Your task to perform on an android device: Open internet settings Image 0: 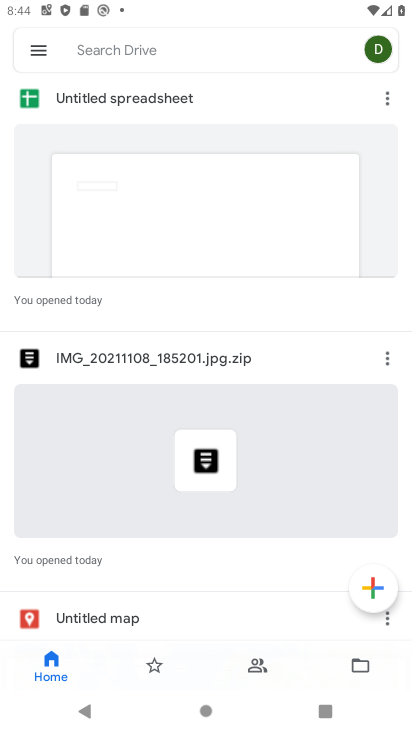
Step 0: press home button
Your task to perform on an android device: Open internet settings Image 1: 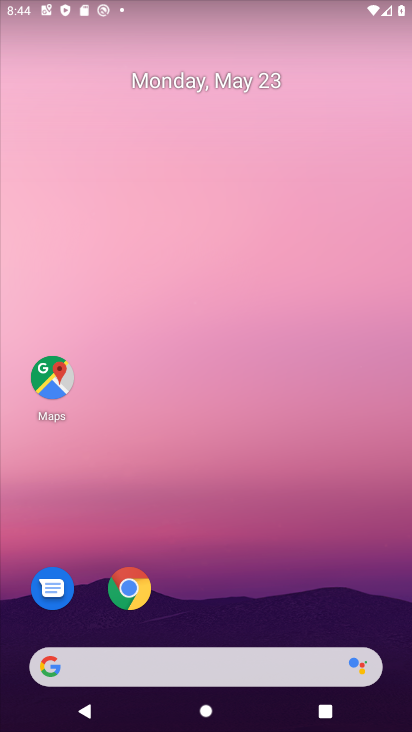
Step 1: drag from (393, 661) to (365, 150)
Your task to perform on an android device: Open internet settings Image 2: 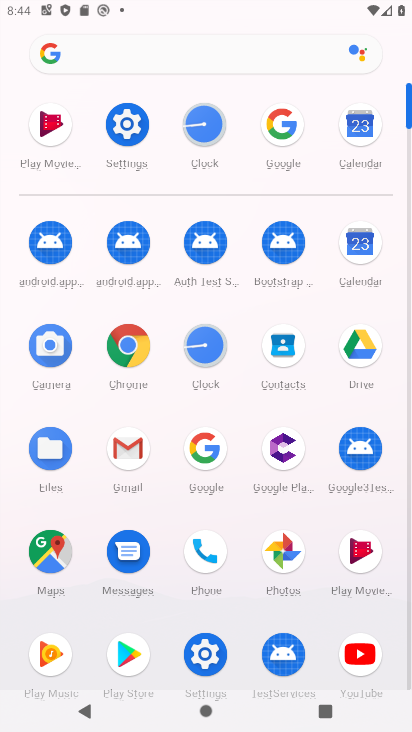
Step 2: click (207, 656)
Your task to perform on an android device: Open internet settings Image 3: 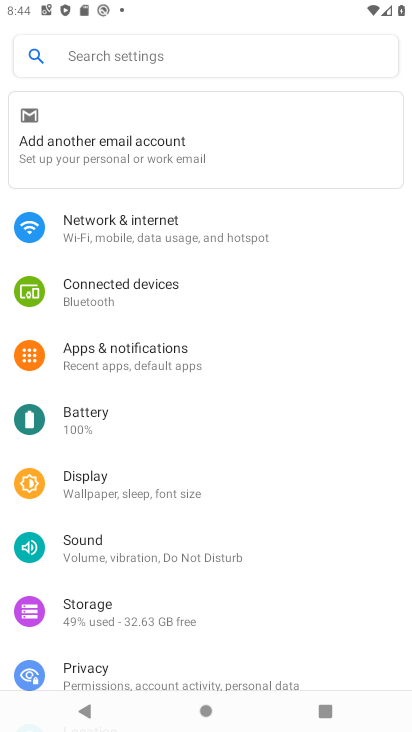
Step 3: click (131, 233)
Your task to perform on an android device: Open internet settings Image 4: 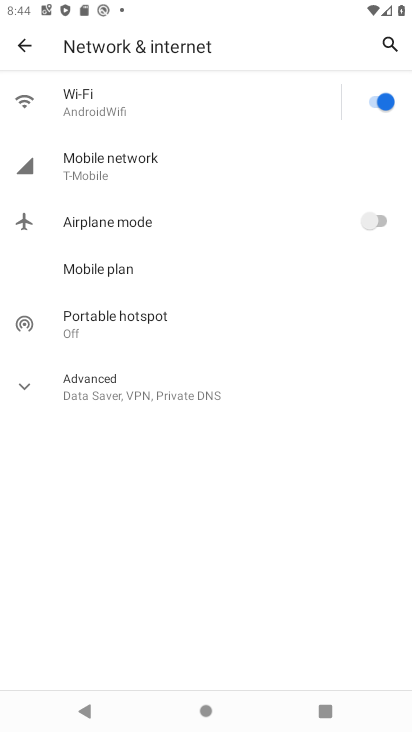
Step 4: click (75, 103)
Your task to perform on an android device: Open internet settings Image 5: 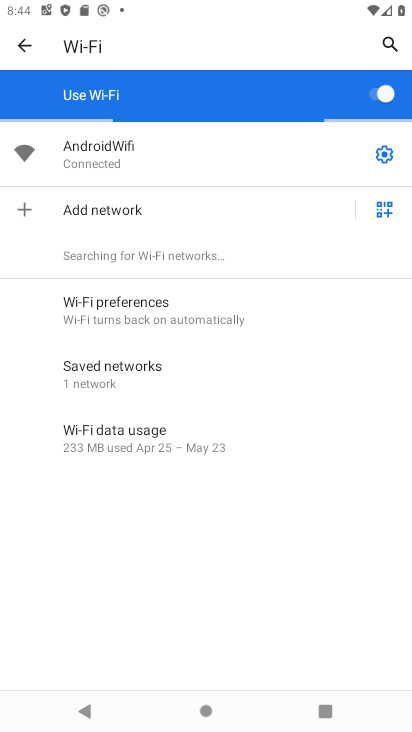
Step 5: click (20, 37)
Your task to perform on an android device: Open internet settings Image 6: 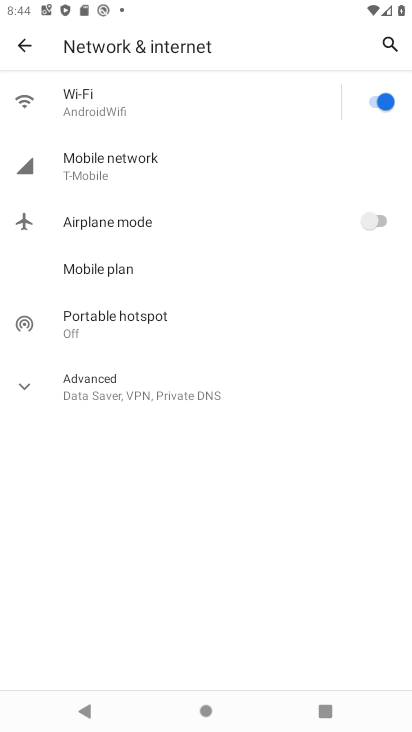
Step 6: click (123, 160)
Your task to perform on an android device: Open internet settings Image 7: 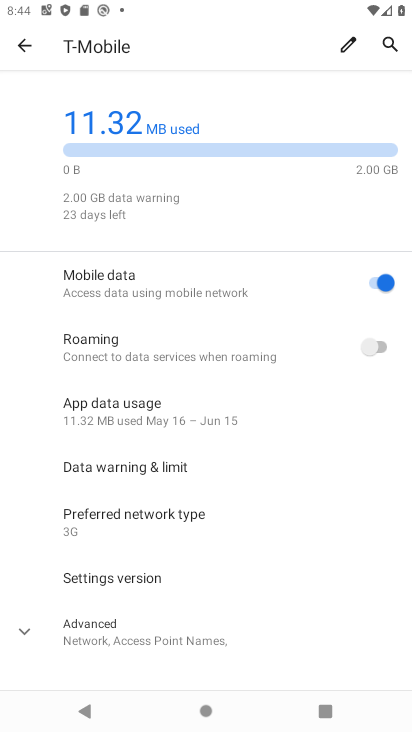
Step 7: drag from (240, 581) to (240, 274)
Your task to perform on an android device: Open internet settings Image 8: 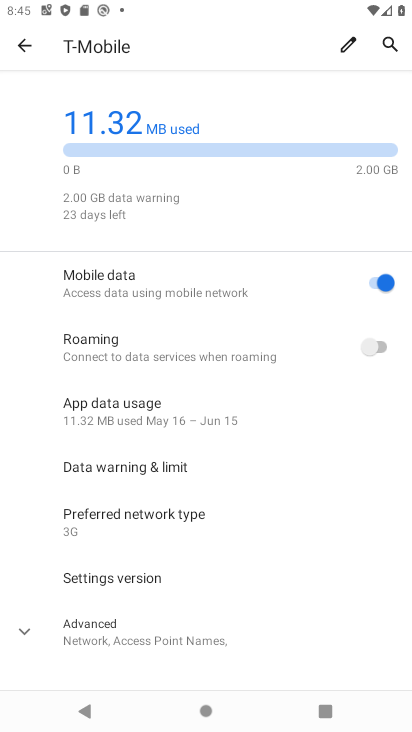
Step 8: click (11, 626)
Your task to perform on an android device: Open internet settings Image 9: 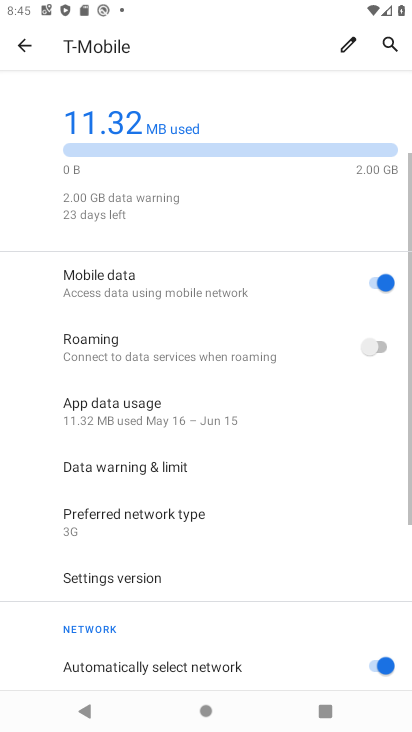
Step 9: task complete